Your task to perform on an android device: change alarm snooze length Image 0: 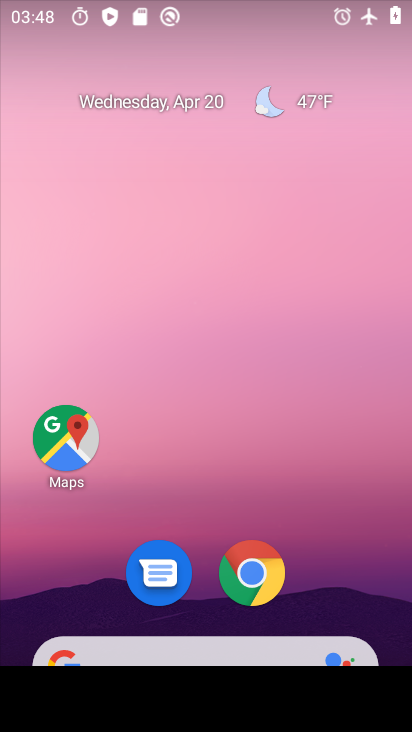
Step 0: drag from (185, 721) to (188, 127)
Your task to perform on an android device: change alarm snooze length Image 1: 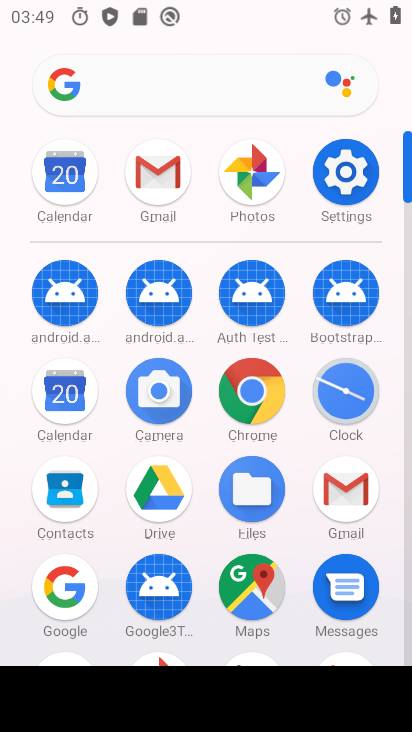
Step 1: click (343, 395)
Your task to perform on an android device: change alarm snooze length Image 2: 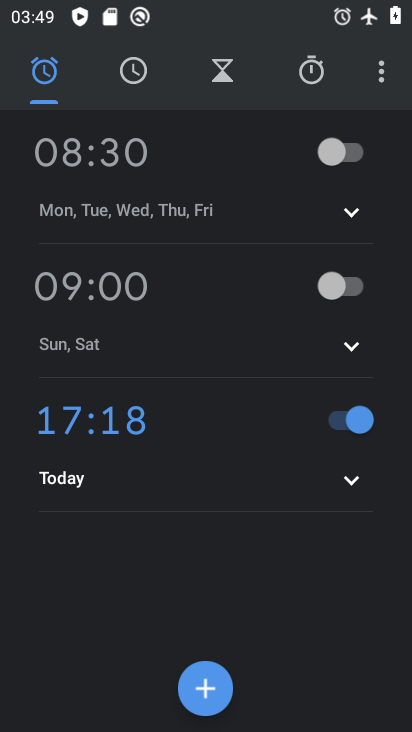
Step 2: click (385, 83)
Your task to perform on an android device: change alarm snooze length Image 3: 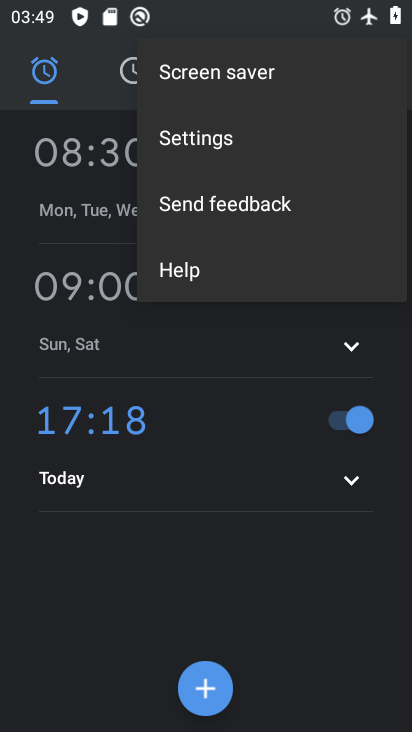
Step 3: click (209, 138)
Your task to perform on an android device: change alarm snooze length Image 4: 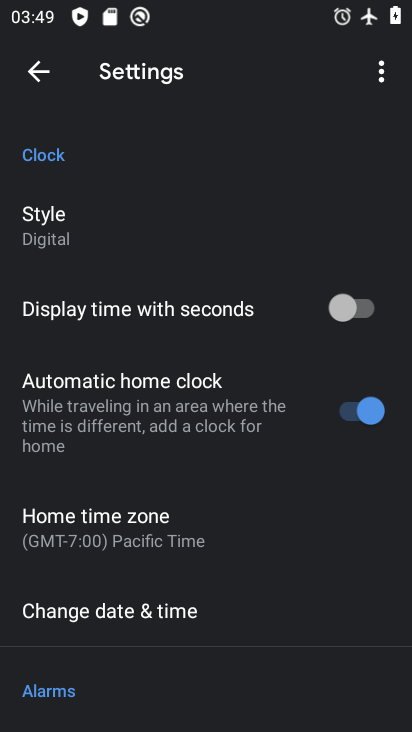
Step 4: drag from (266, 655) to (245, 355)
Your task to perform on an android device: change alarm snooze length Image 5: 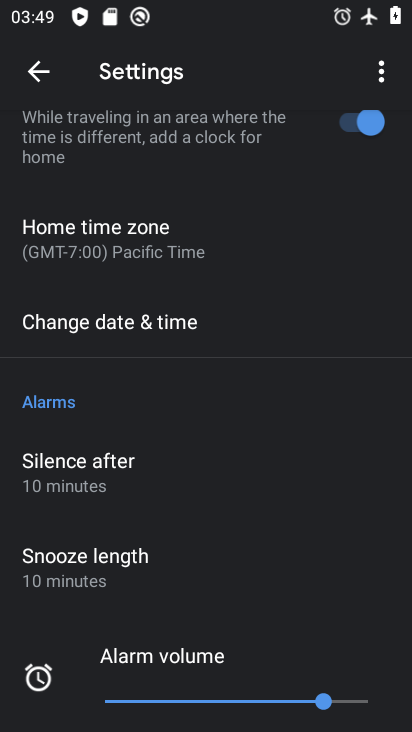
Step 5: click (95, 565)
Your task to perform on an android device: change alarm snooze length Image 6: 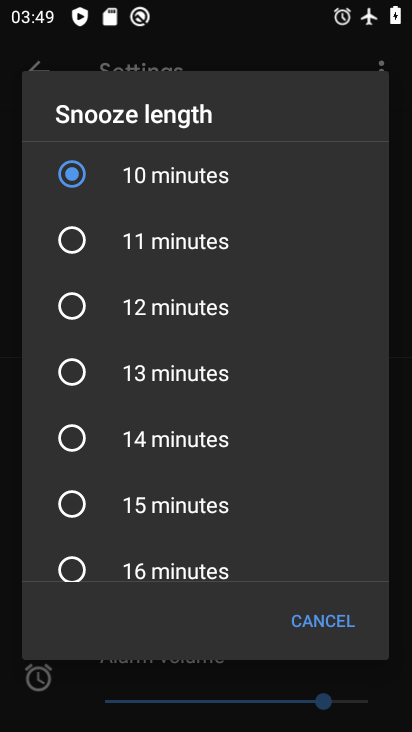
Step 6: click (76, 508)
Your task to perform on an android device: change alarm snooze length Image 7: 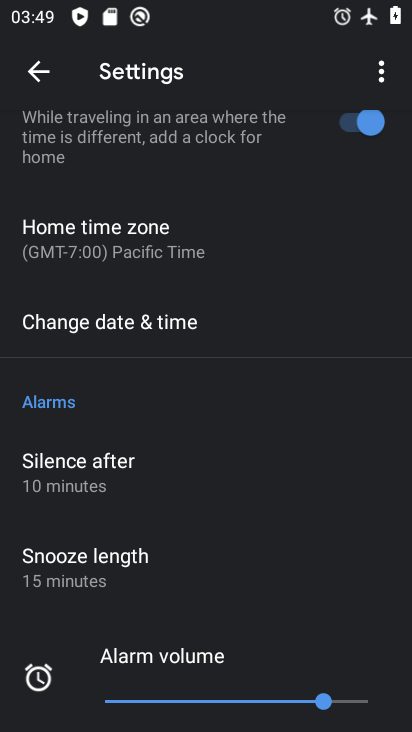
Step 7: task complete